Your task to perform on an android device: What's US dollar exchange rateagainst the Mexican Peso? Image 0: 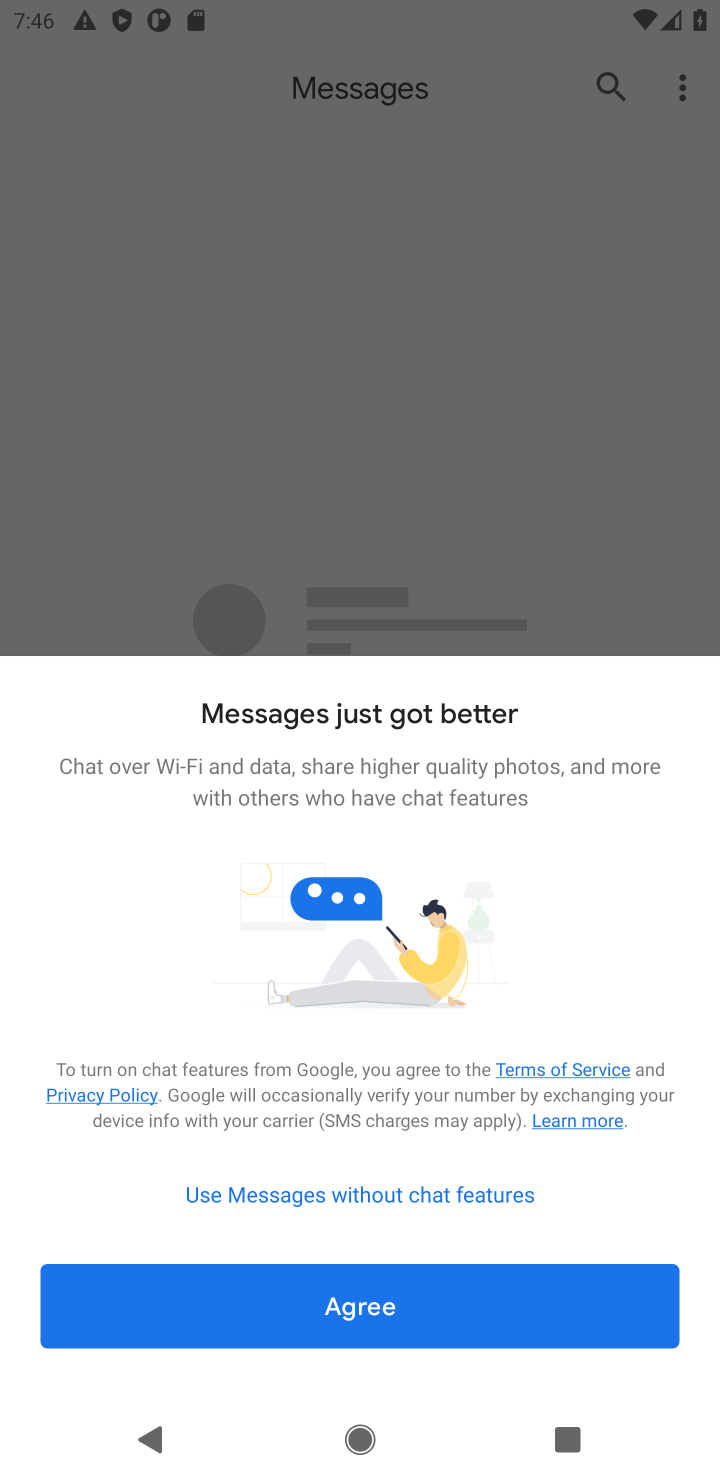
Step 0: press home button
Your task to perform on an android device: What's US dollar exchange rateagainst the Mexican Peso? Image 1: 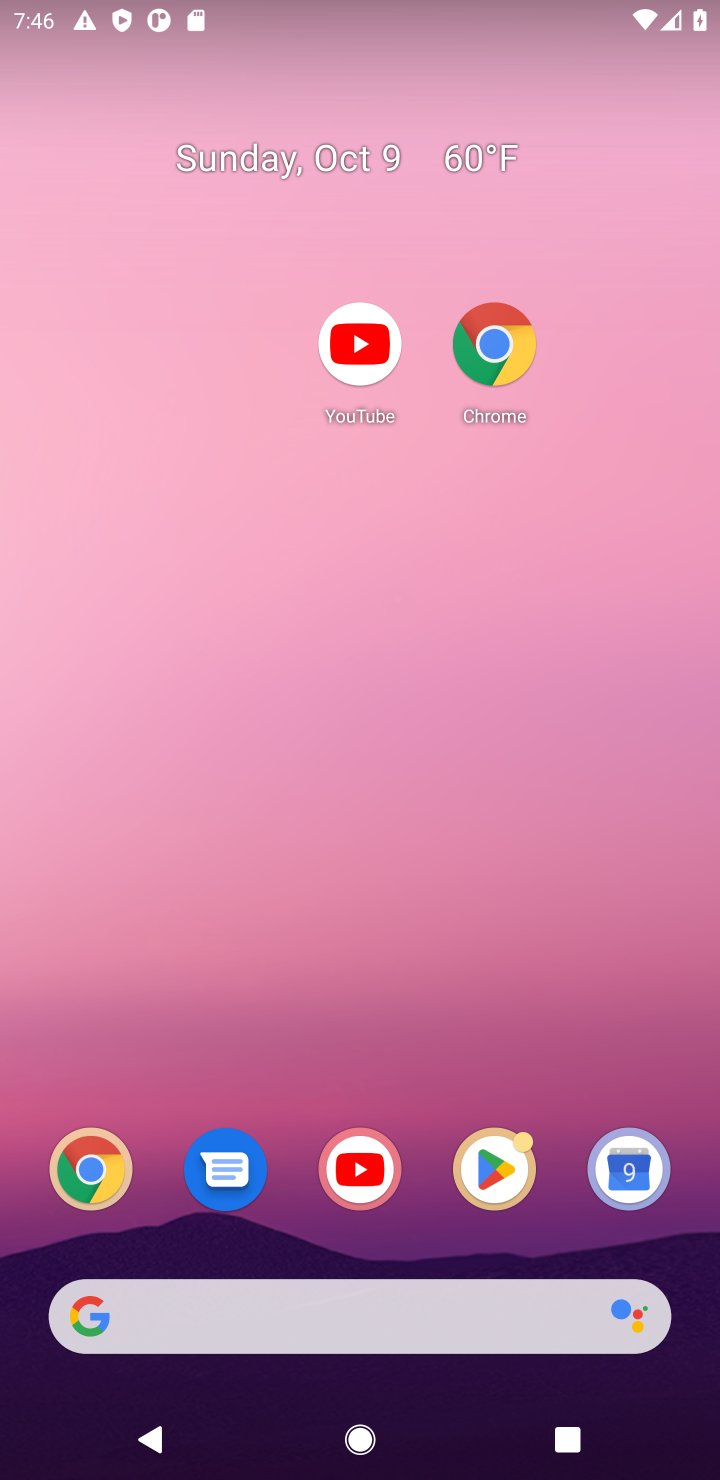
Step 1: drag from (436, 1228) to (443, 42)
Your task to perform on an android device: What's US dollar exchange rateagainst the Mexican Peso? Image 2: 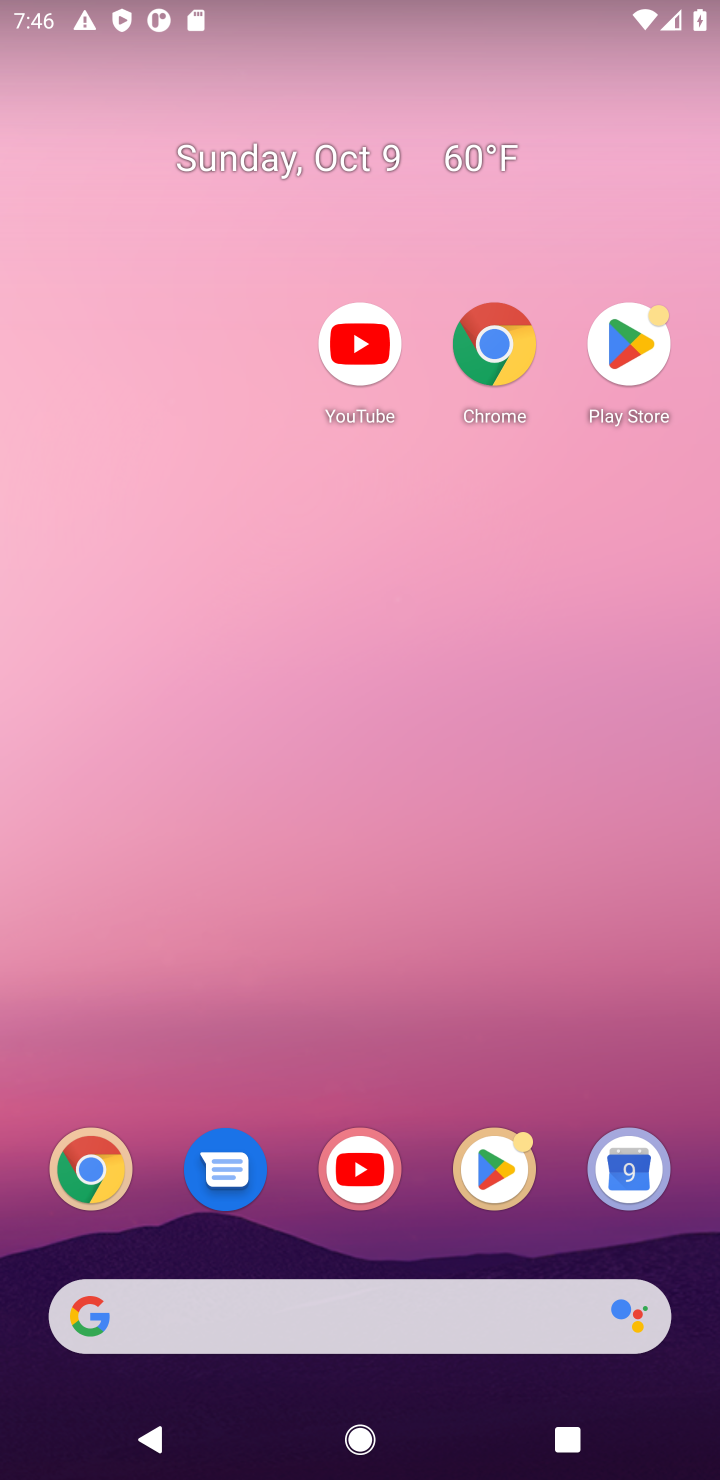
Step 2: drag from (576, 1247) to (582, 78)
Your task to perform on an android device: What's US dollar exchange rateagainst the Mexican Peso? Image 3: 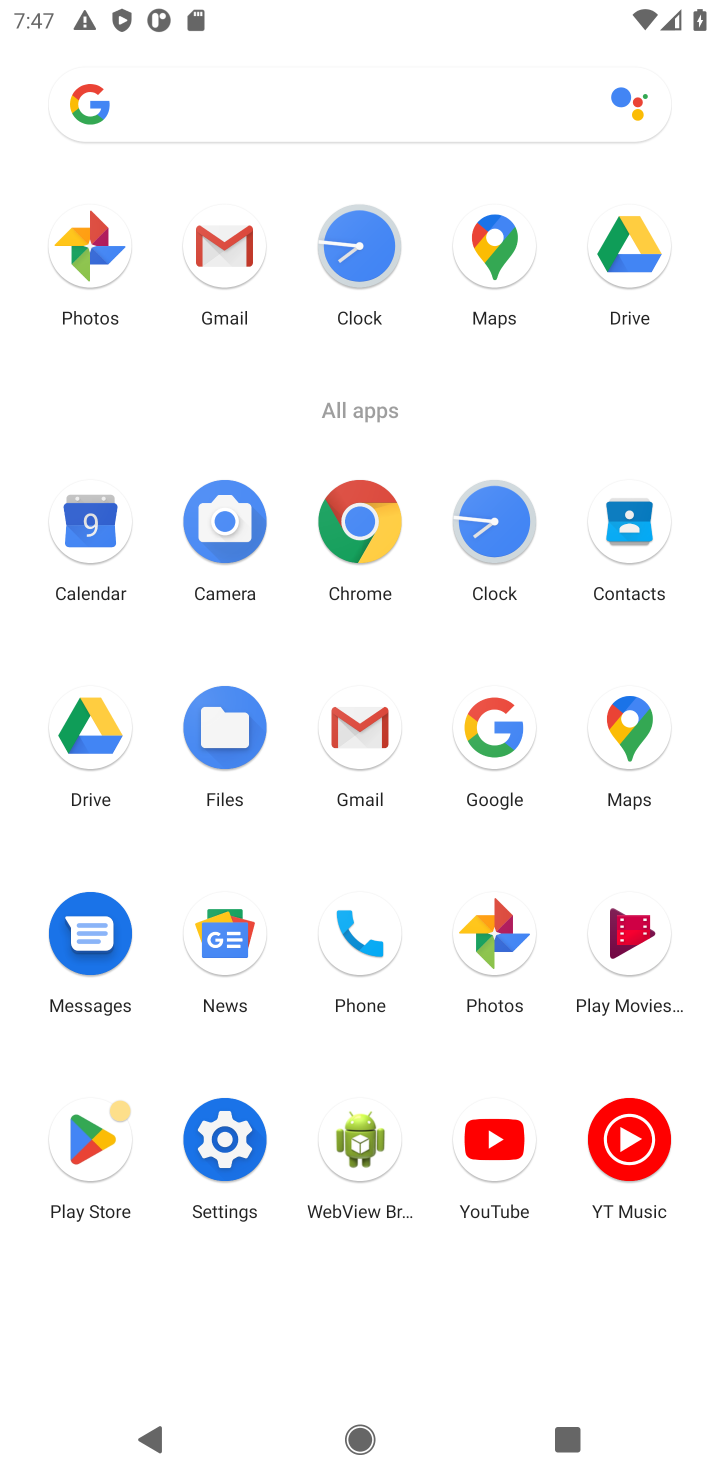
Step 3: click (353, 530)
Your task to perform on an android device: What's US dollar exchange rateagainst the Mexican Peso? Image 4: 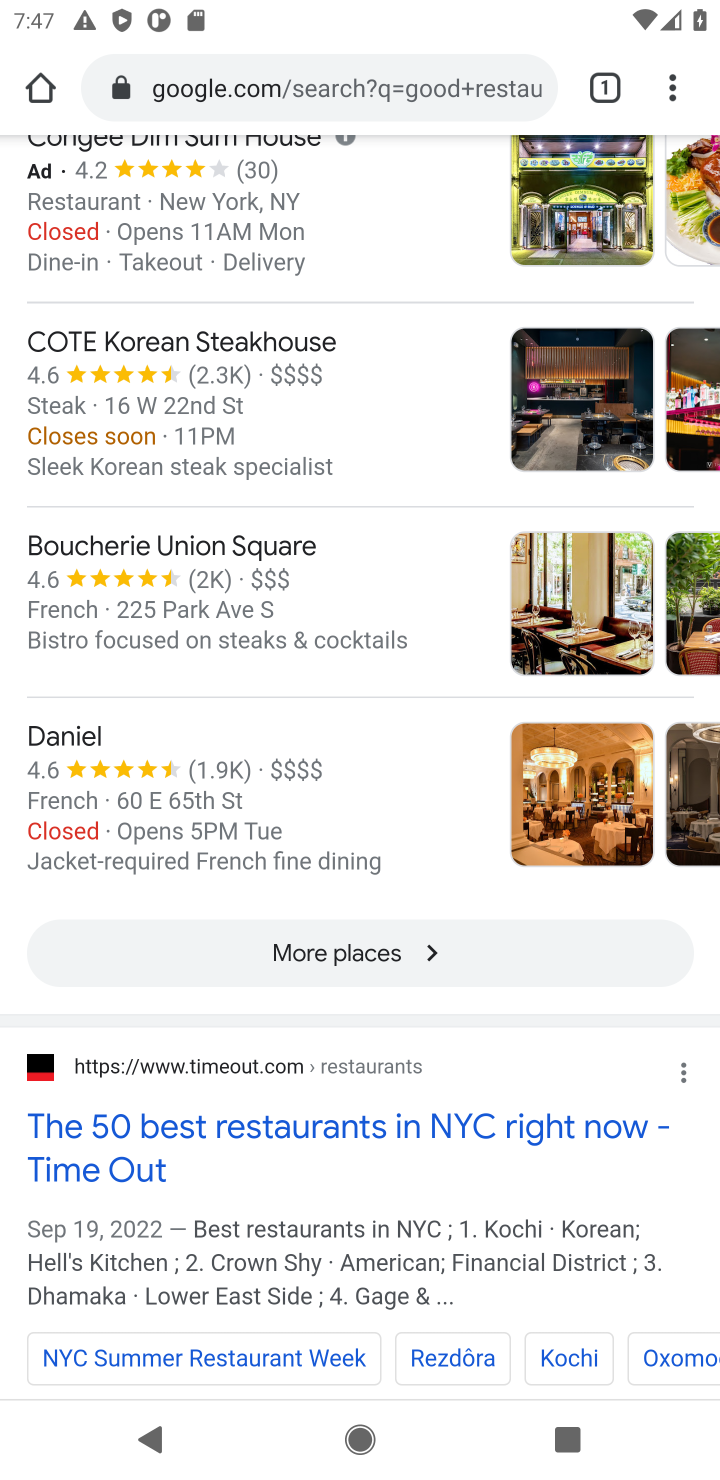
Step 4: drag from (366, 182) to (245, 998)
Your task to perform on an android device: What's US dollar exchange rateagainst the Mexican Peso? Image 5: 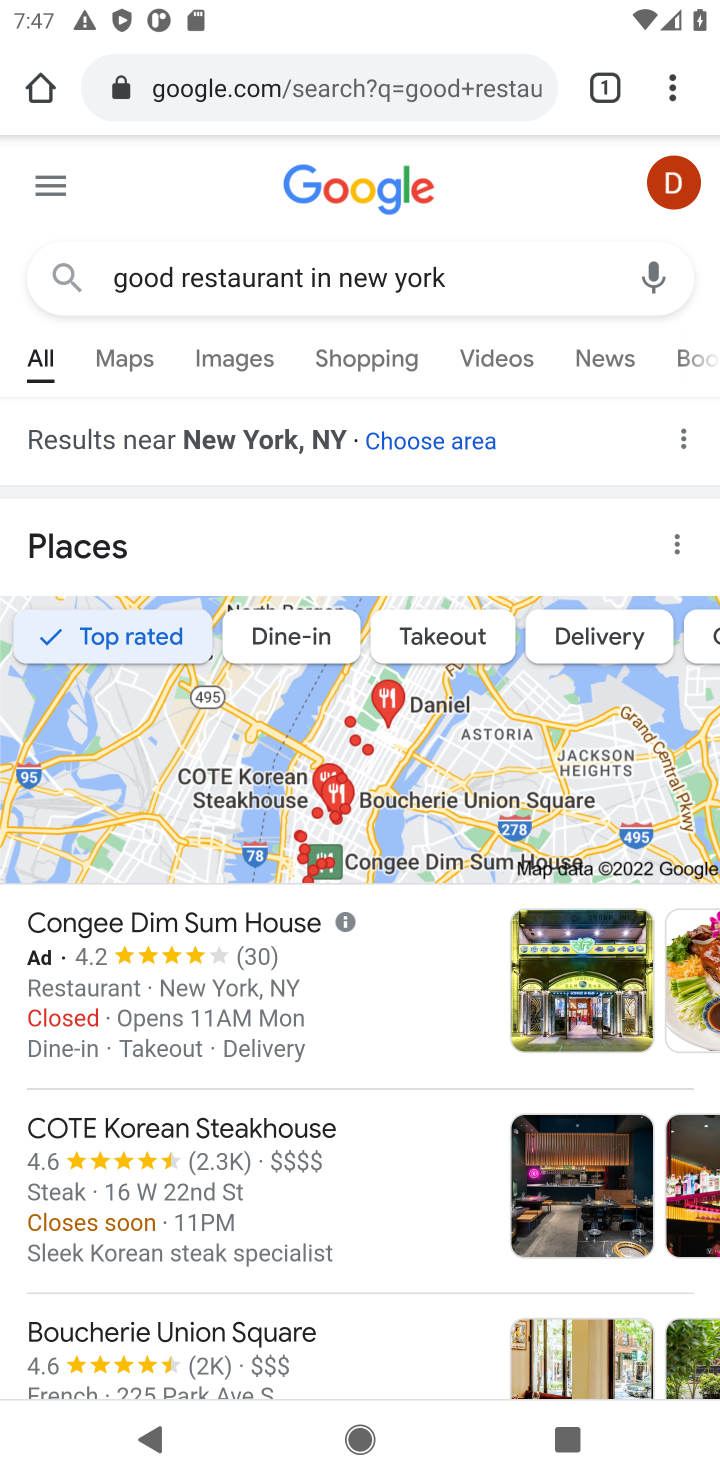
Step 5: click (365, 267)
Your task to perform on an android device: What's US dollar exchange rateagainst the Mexican Peso? Image 6: 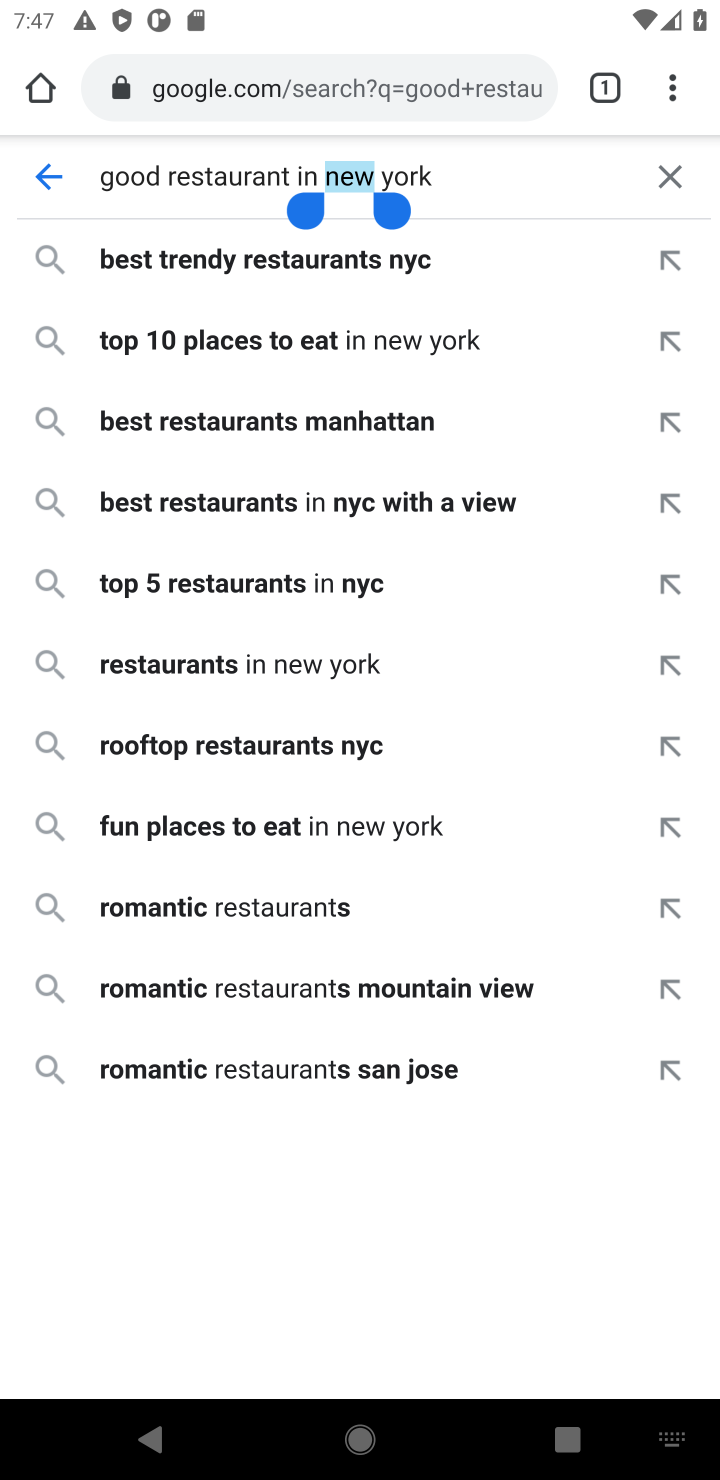
Step 6: click (452, 77)
Your task to perform on an android device: What's US dollar exchange rateagainst the Mexican Peso? Image 7: 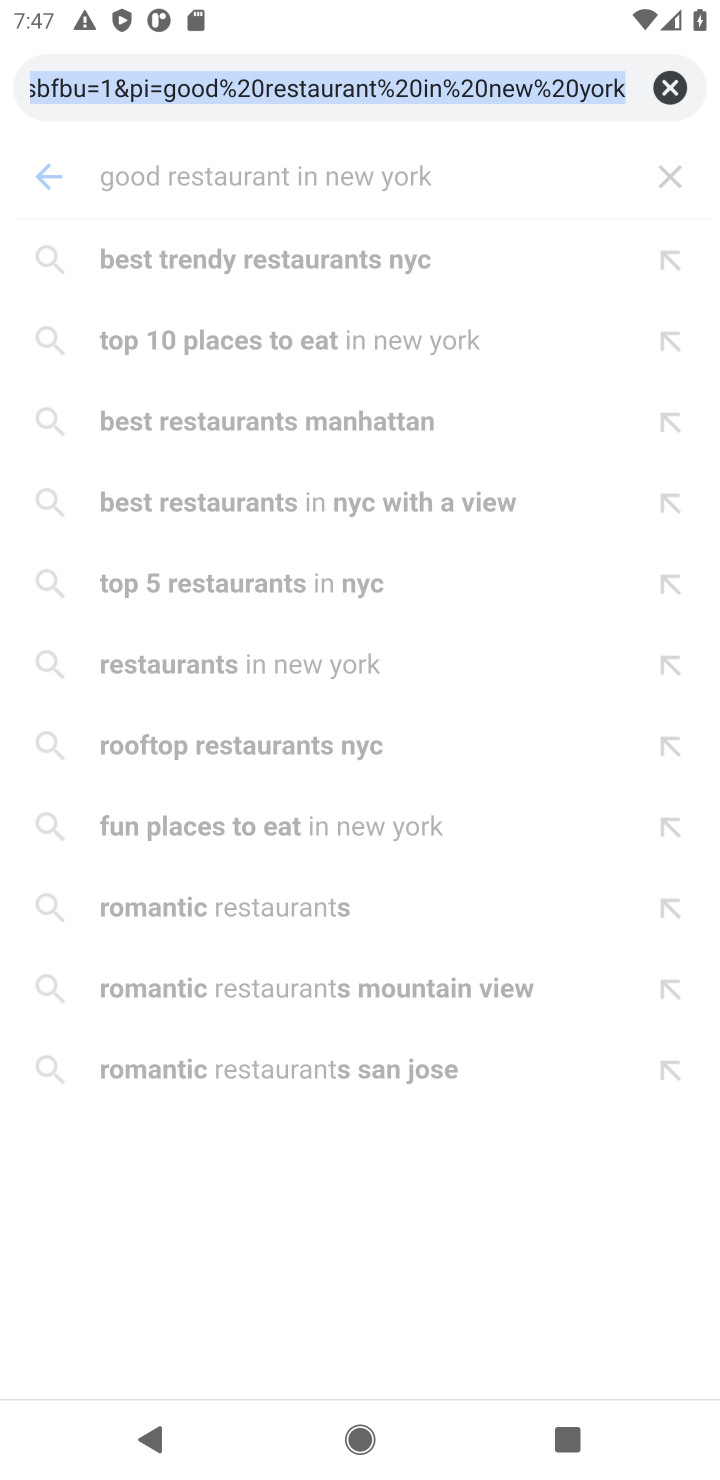
Step 7: type "YS doll"
Your task to perform on an android device: What's US dollar exchange rateagainst the Mexican Peso? Image 8: 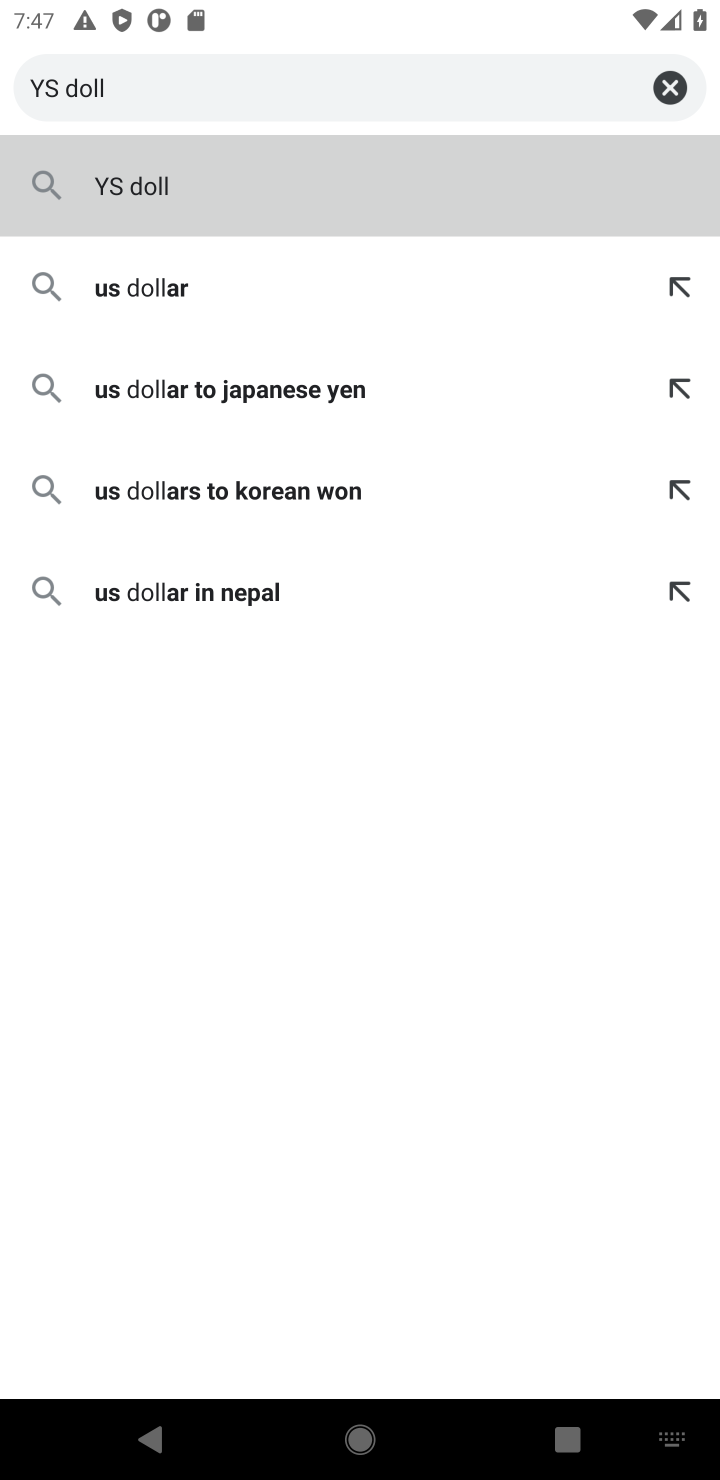
Step 8: type "ar exchange rate against the Mexican peso"
Your task to perform on an android device: What's US dollar exchange rateagainst the Mexican Peso? Image 9: 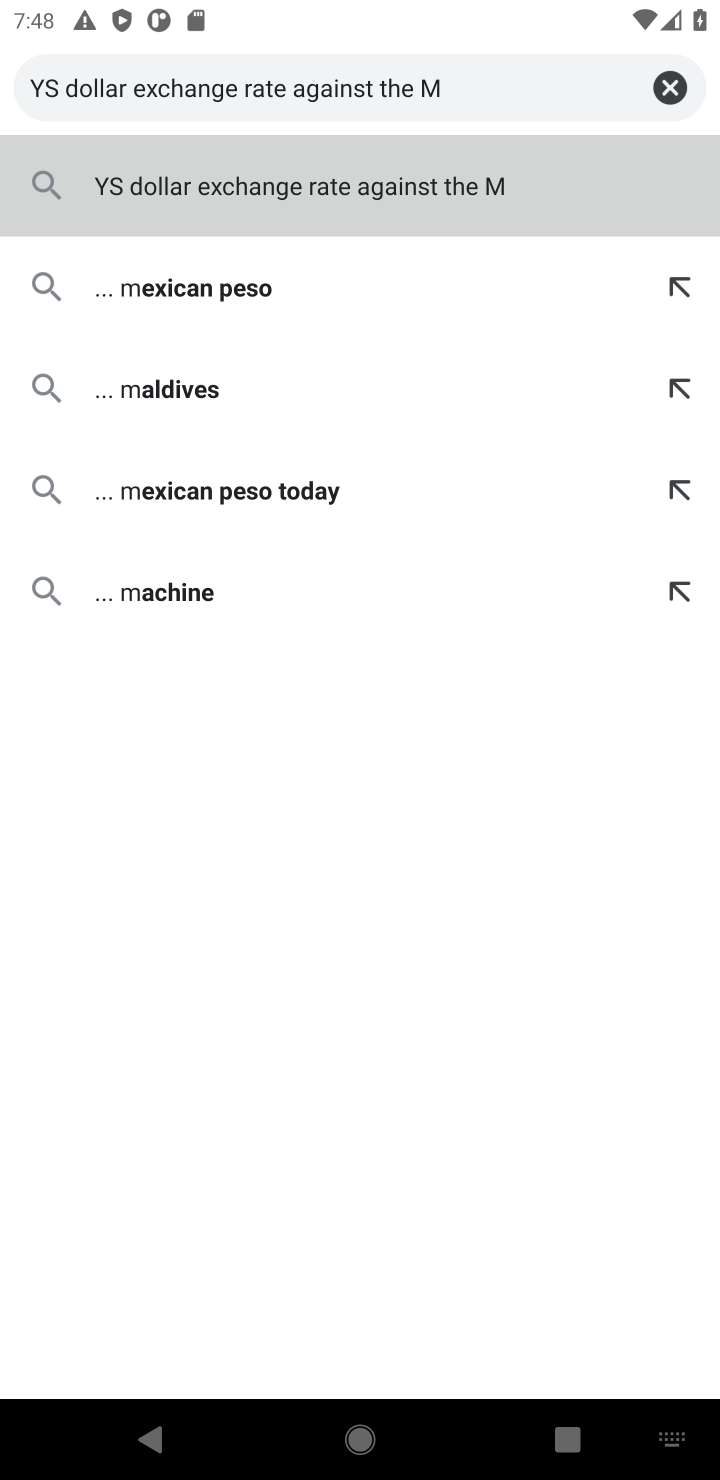
Step 9: type "exican Peso"
Your task to perform on an android device: What's US dollar exchange rateagainst the Mexican Peso? Image 10: 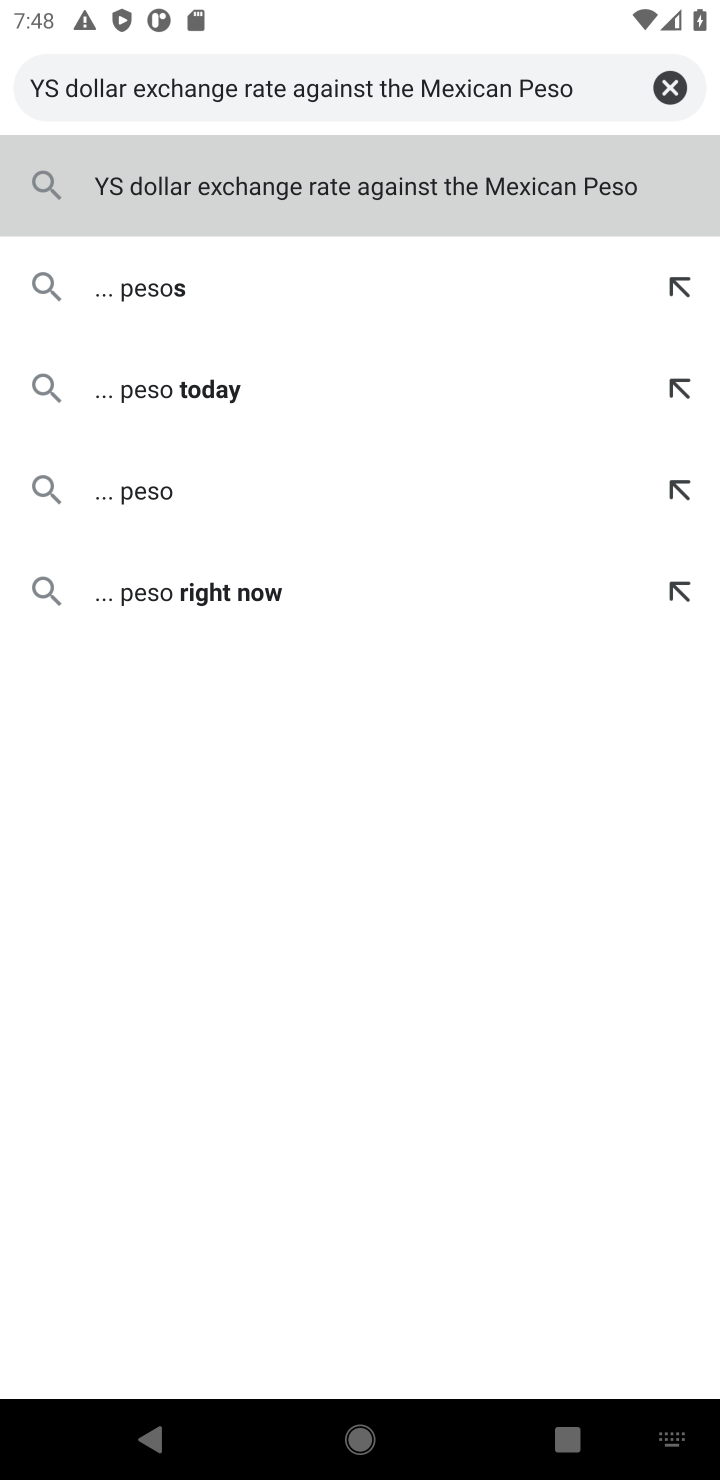
Step 10: press enter
Your task to perform on an android device: What's US dollar exchange rateagainst the Mexican Peso? Image 11: 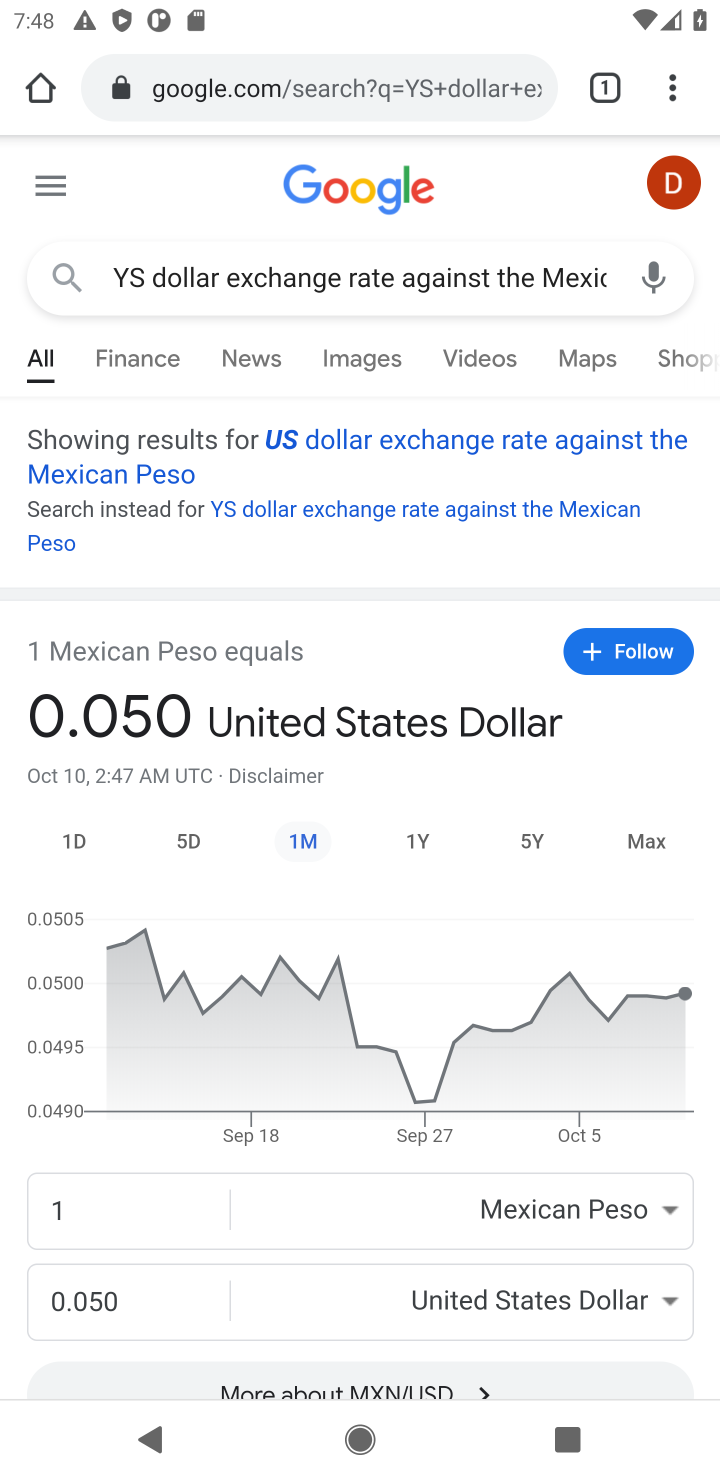
Step 11: task complete